Your task to perform on an android device: Open ESPN.com Image 0: 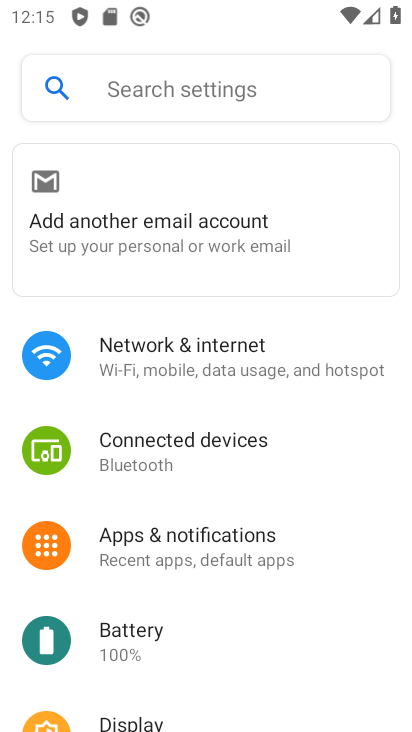
Step 0: press home button
Your task to perform on an android device: Open ESPN.com Image 1: 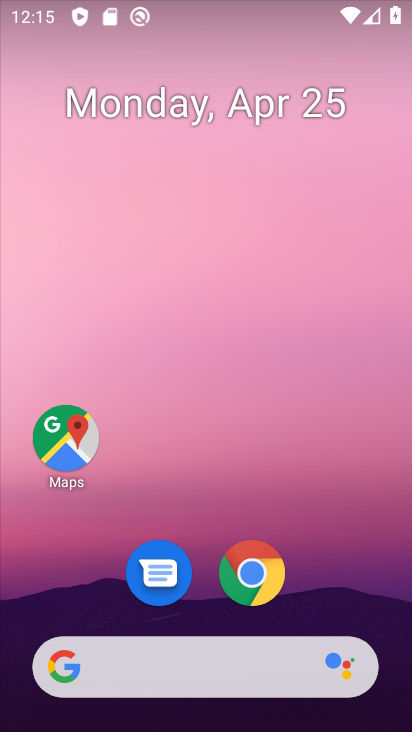
Step 1: drag from (259, 664) to (92, 170)
Your task to perform on an android device: Open ESPN.com Image 2: 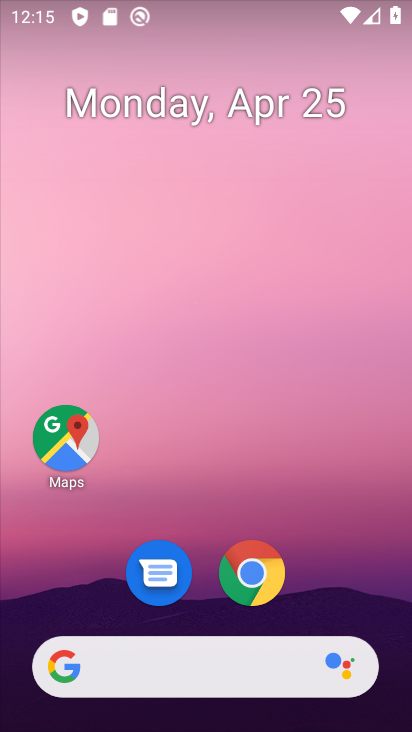
Step 2: click (189, 115)
Your task to perform on an android device: Open ESPN.com Image 3: 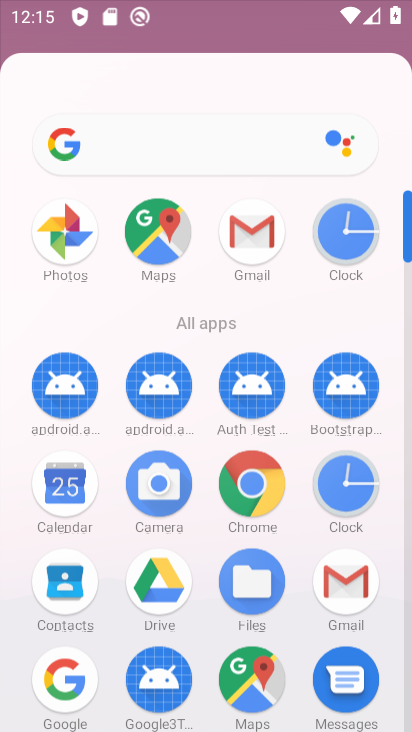
Step 3: drag from (245, 624) to (151, 35)
Your task to perform on an android device: Open ESPN.com Image 4: 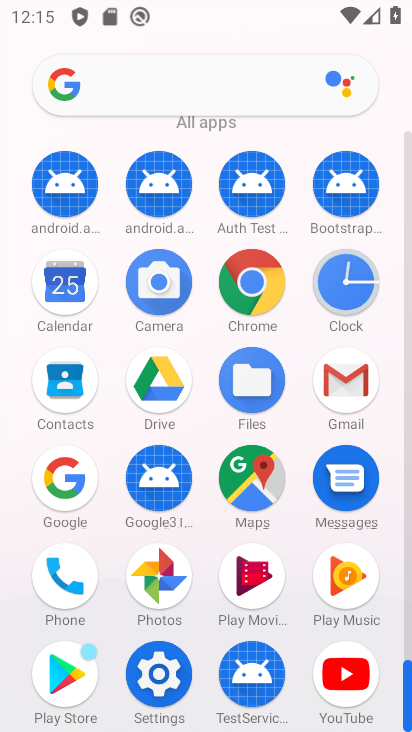
Step 4: click (253, 423)
Your task to perform on an android device: Open ESPN.com Image 5: 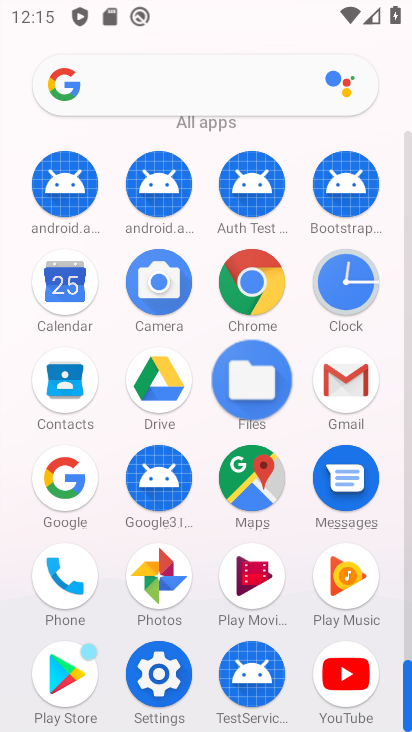
Step 5: click (240, 271)
Your task to perform on an android device: Open ESPN.com Image 6: 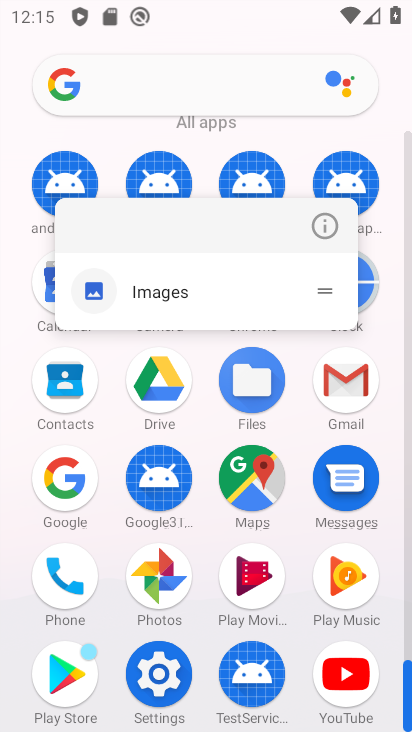
Step 6: click (240, 271)
Your task to perform on an android device: Open ESPN.com Image 7: 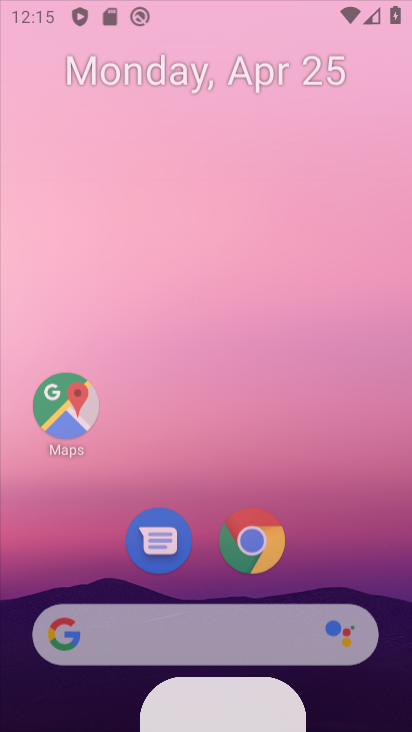
Step 7: click (124, 83)
Your task to perform on an android device: Open ESPN.com Image 8: 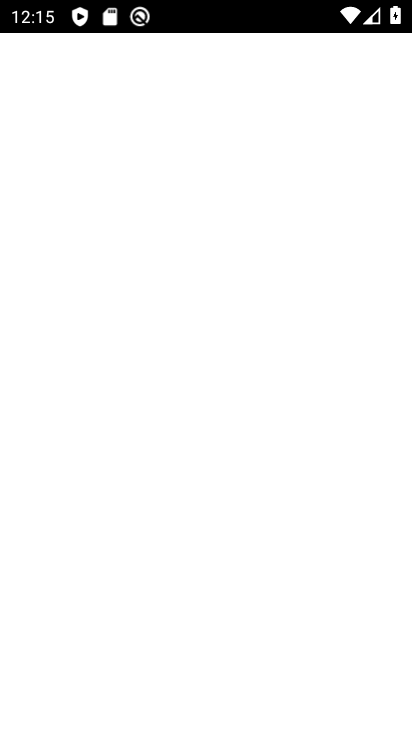
Step 8: drag from (174, 103) to (167, 29)
Your task to perform on an android device: Open ESPN.com Image 9: 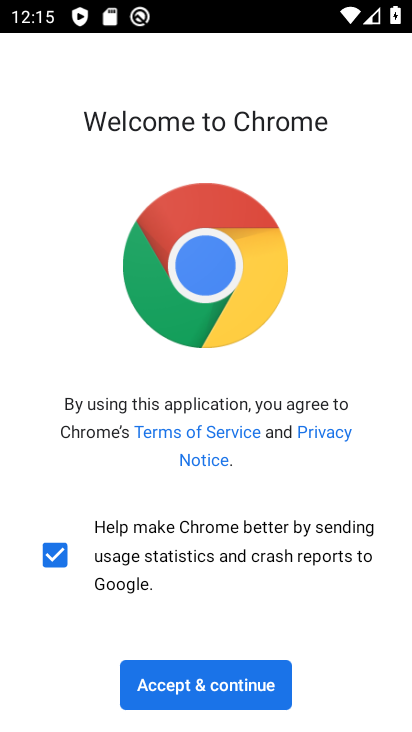
Step 9: click (159, 682)
Your task to perform on an android device: Open ESPN.com Image 10: 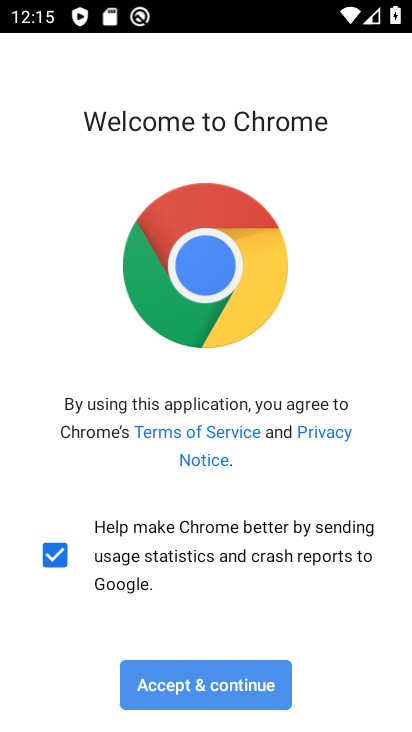
Step 10: drag from (165, 685) to (206, 632)
Your task to perform on an android device: Open ESPN.com Image 11: 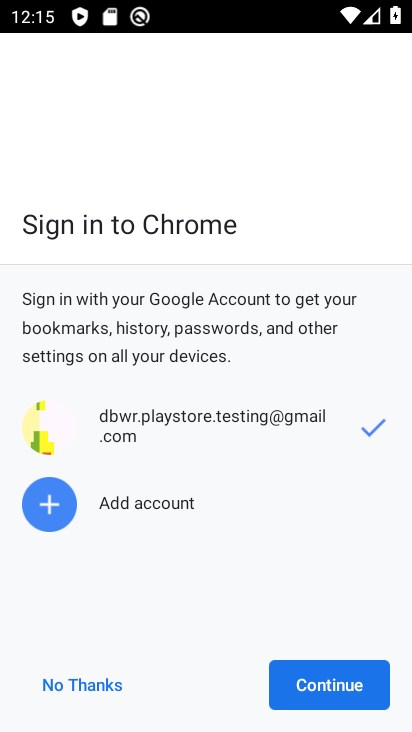
Step 11: click (327, 675)
Your task to perform on an android device: Open ESPN.com Image 12: 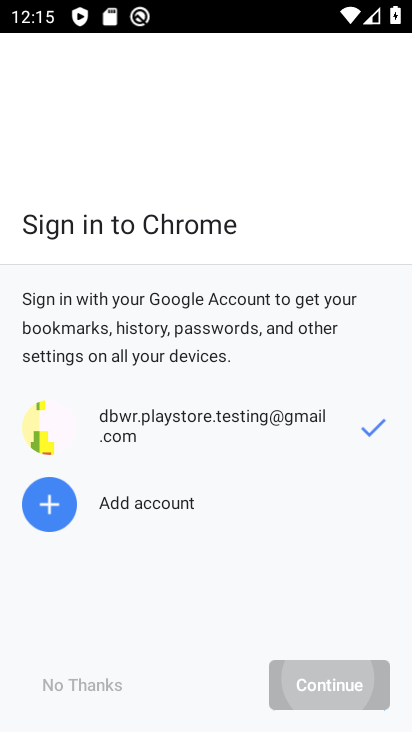
Step 12: click (324, 681)
Your task to perform on an android device: Open ESPN.com Image 13: 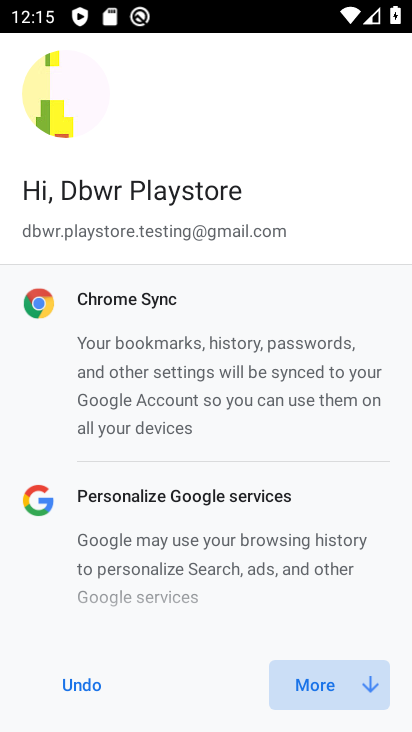
Step 13: click (320, 688)
Your task to perform on an android device: Open ESPN.com Image 14: 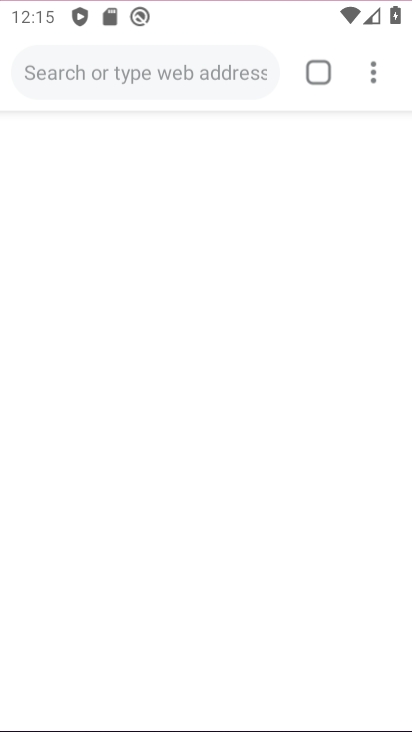
Step 14: click (324, 682)
Your task to perform on an android device: Open ESPN.com Image 15: 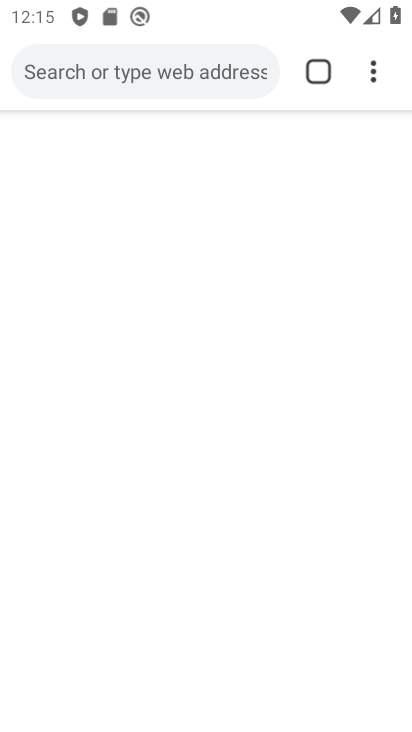
Step 15: click (325, 681)
Your task to perform on an android device: Open ESPN.com Image 16: 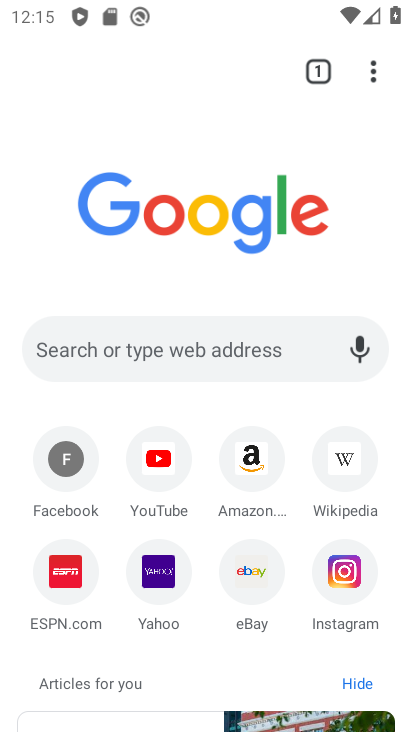
Step 16: click (62, 567)
Your task to perform on an android device: Open ESPN.com Image 17: 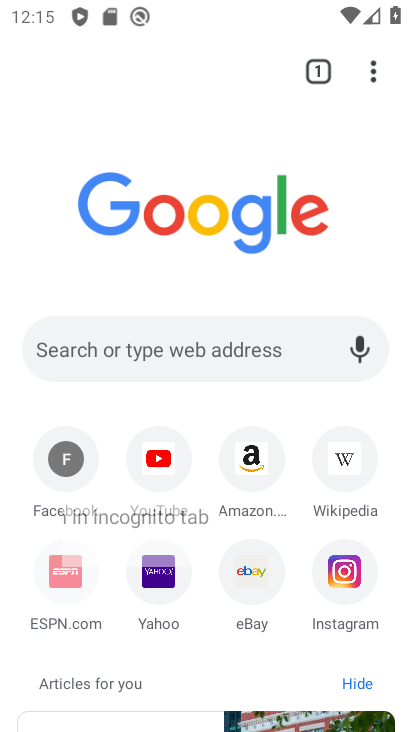
Step 17: click (66, 583)
Your task to perform on an android device: Open ESPN.com Image 18: 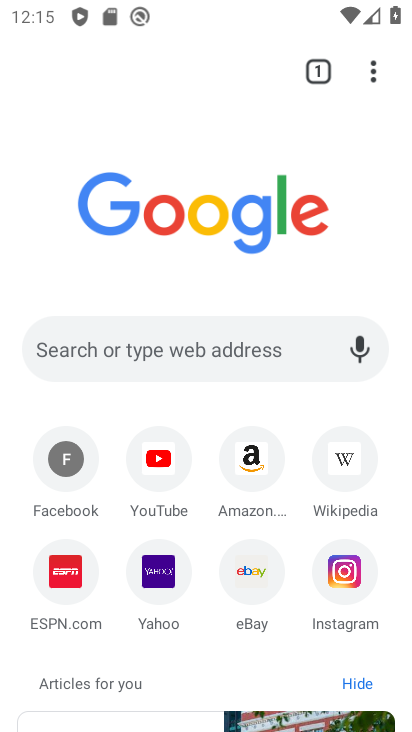
Step 18: click (73, 567)
Your task to perform on an android device: Open ESPN.com Image 19: 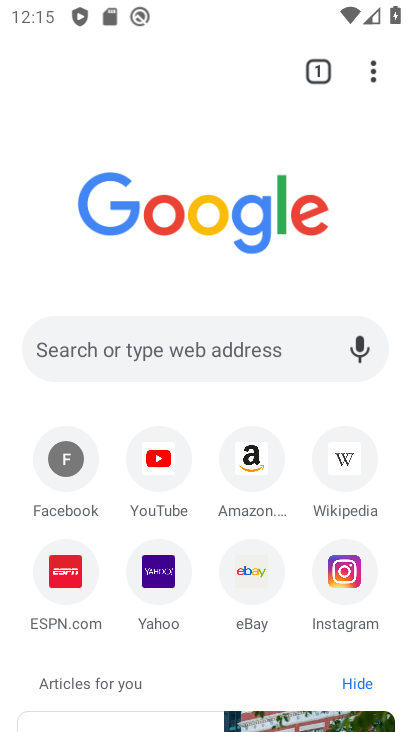
Step 19: click (65, 575)
Your task to perform on an android device: Open ESPN.com Image 20: 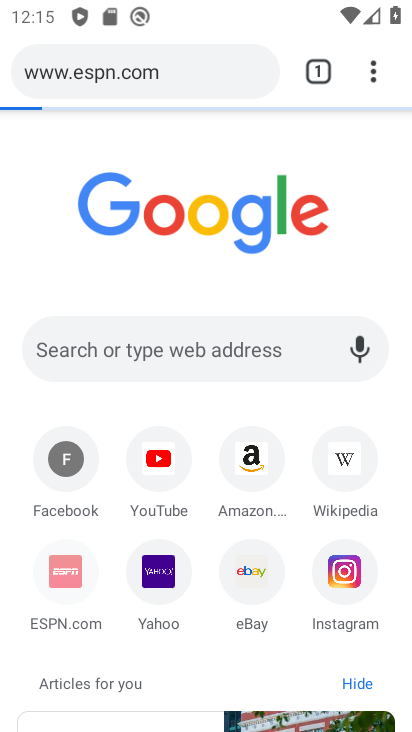
Step 20: click (63, 569)
Your task to perform on an android device: Open ESPN.com Image 21: 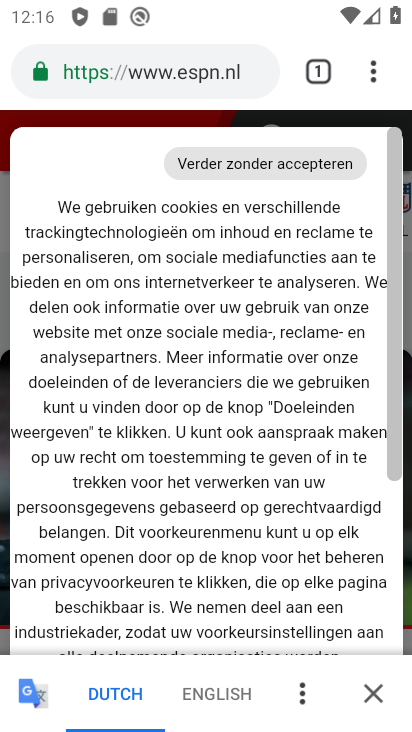
Step 21: task complete